Your task to perform on an android device: Open ESPN.com Image 0: 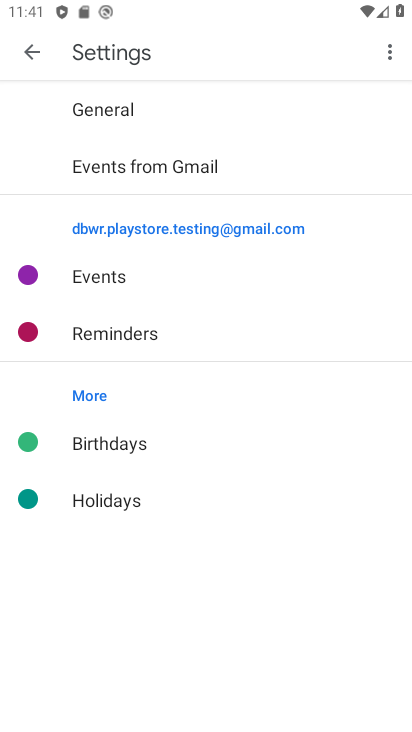
Step 0: press home button
Your task to perform on an android device: Open ESPN.com Image 1: 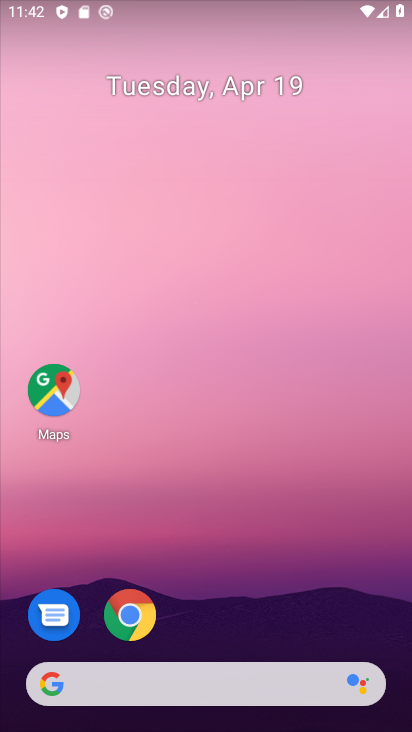
Step 1: click (135, 610)
Your task to perform on an android device: Open ESPN.com Image 2: 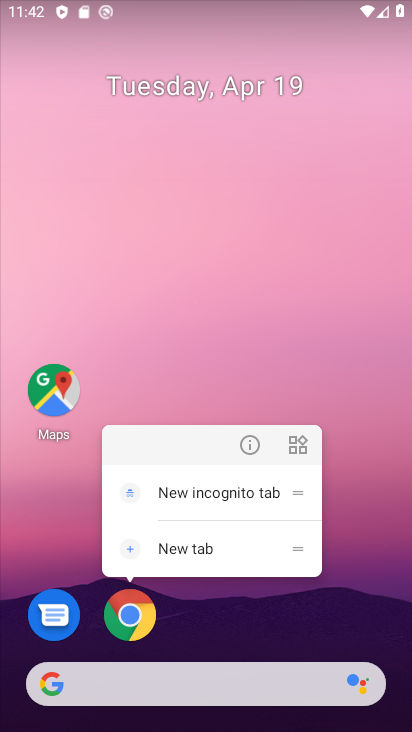
Step 2: click (137, 610)
Your task to perform on an android device: Open ESPN.com Image 3: 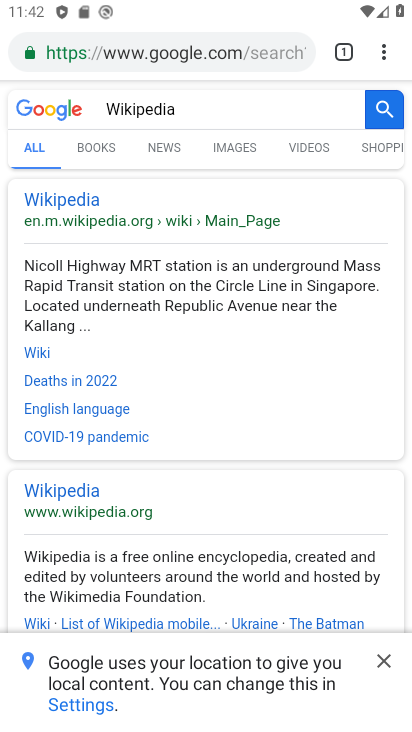
Step 3: click (284, 47)
Your task to perform on an android device: Open ESPN.com Image 4: 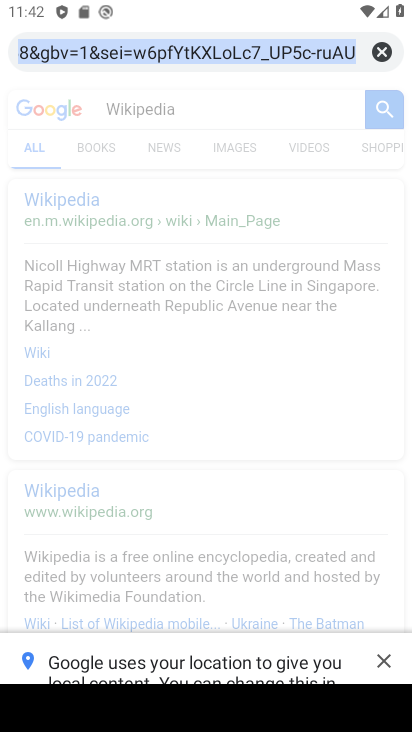
Step 4: click (390, 49)
Your task to perform on an android device: Open ESPN.com Image 5: 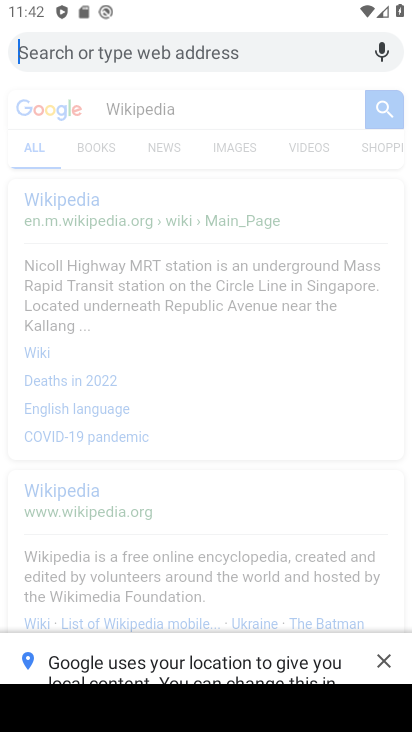
Step 5: type "ESPN.com"
Your task to perform on an android device: Open ESPN.com Image 6: 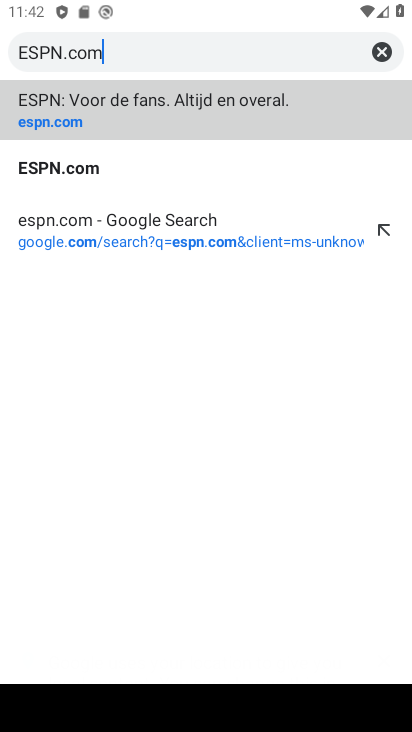
Step 6: click (58, 163)
Your task to perform on an android device: Open ESPN.com Image 7: 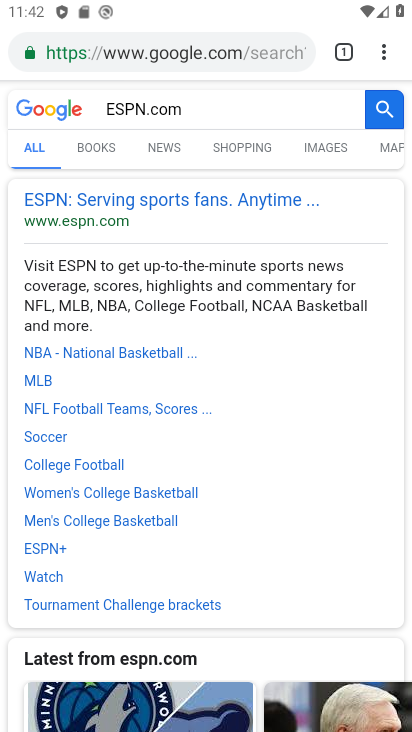
Step 7: task complete